Your task to perform on an android device: Open calendar and show me the first week of next month Image 0: 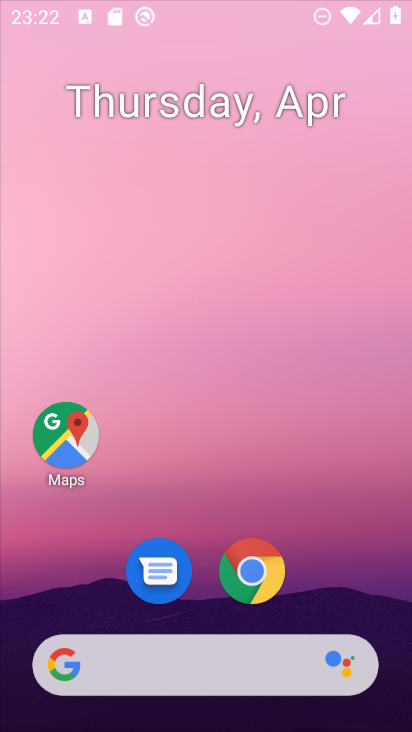
Step 0: click (328, 77)
Your task to perform on an android device: Open calendar and show me the first week of next month Image 1: 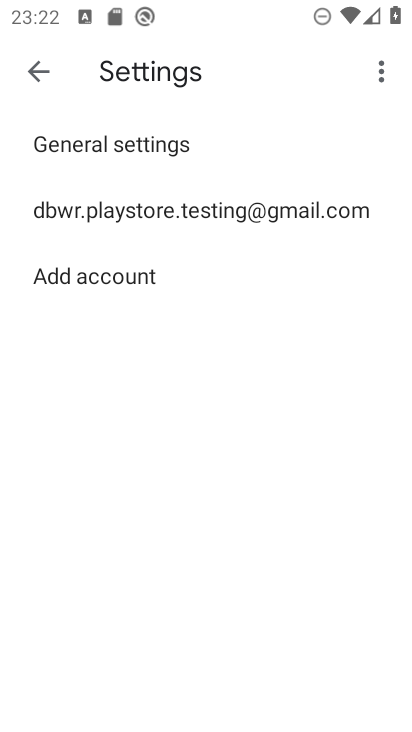
Step 1: press home button
Your task to perform on an android device: Open calendar and show me the first week of next month Image 2: 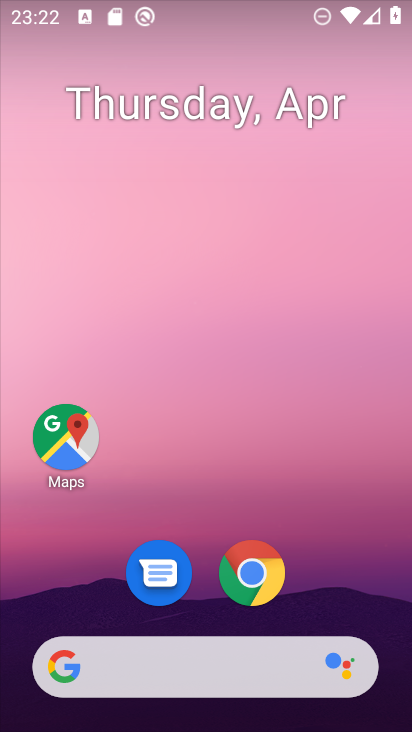
Step 2: drag from (353, 608) to (315, 103)
Your task to perform on an android device: Open calendar and show me the first week of next month Image 3: 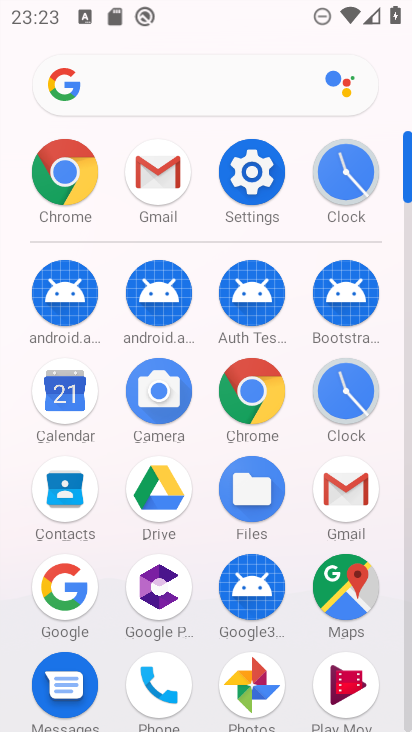
Step 3: click (70, 397)
Your task to perform on an android device: Open calendar and show me the first week of next month Image 4: 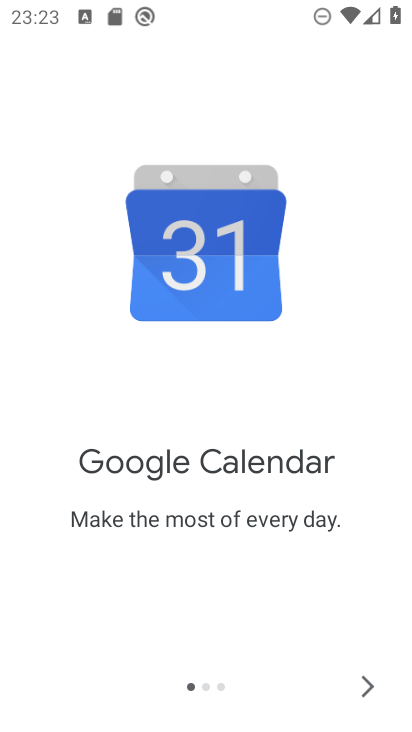
Step 4: click (372, 683)
Your task to perform on an android device: Open calendar and show me the first week of next month Image 5: 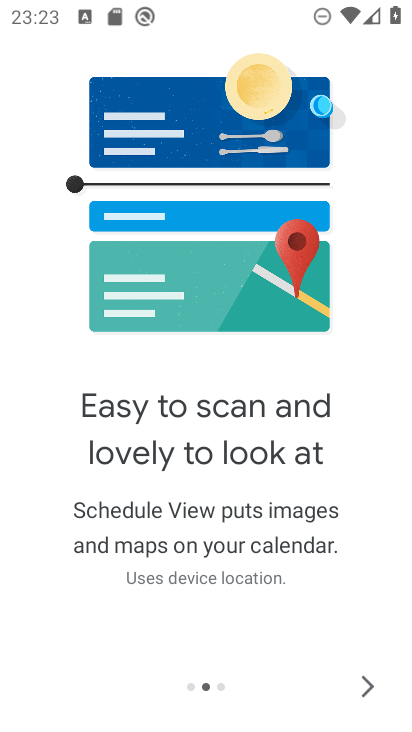
Step 5: click (372, 683)
Your task to perform on an android device: Open calendar and show me the first week of next month Image 6: 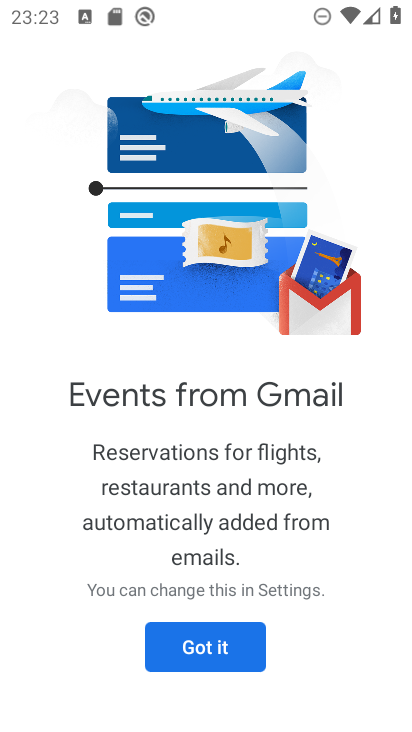
Step 6: click (259, 646)
Your task to perform on an android device: Open calendar and show me the first week of next month Image 7: 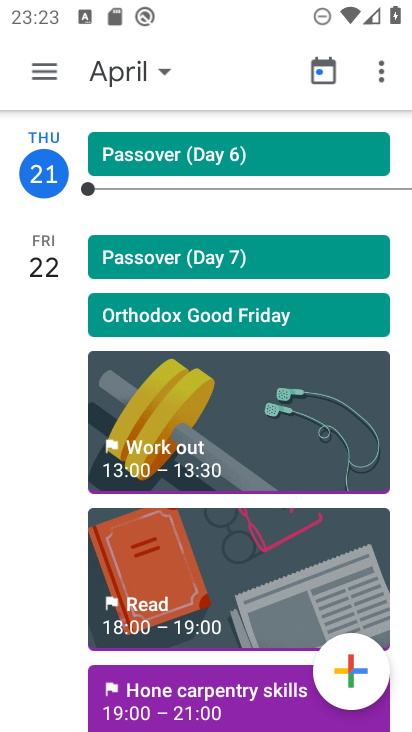
Step 7: click (160, 76)
Your task to perform on an android device: Open calendar and show me the first week of next month Image 8: 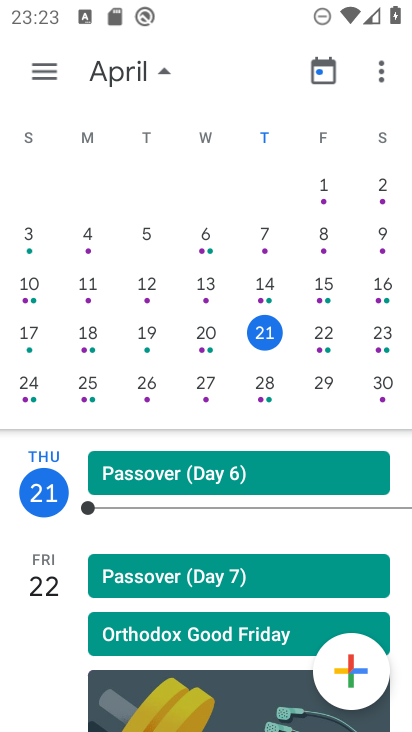
Step 8: drag from (380, 311) to (3, 170)
Your task to perform on an android device: Open calendar and show me the first week of next month Image 9: 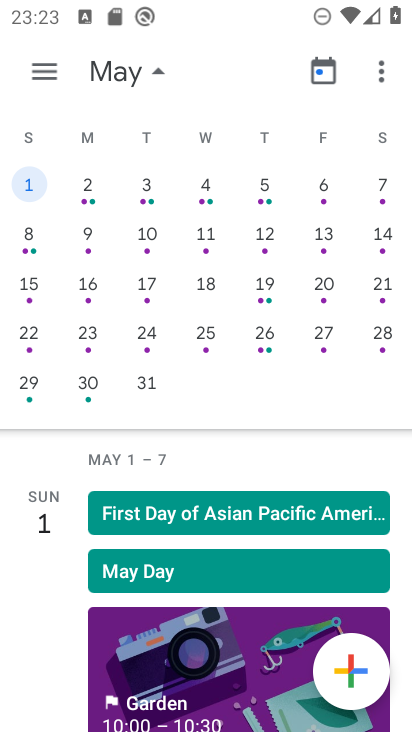
Step 9: click (45, 73)
Your task to perform on an android device: Open calendar and show me the first week of next month Image 10: 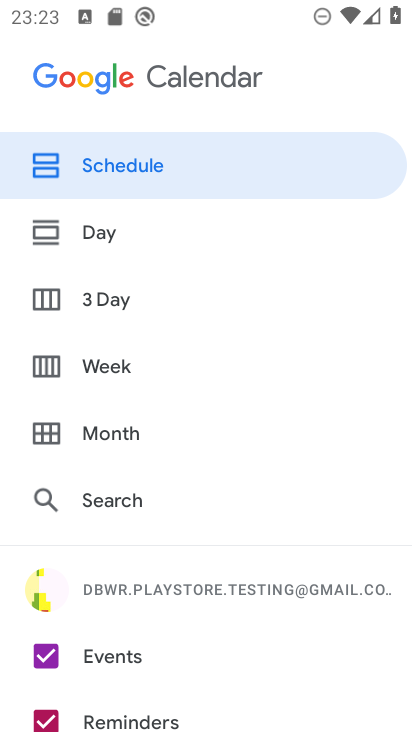
Step 10: click (145, 363)
Your task to perform on an android device: Open calendar and show me the first week of next month Image 11: 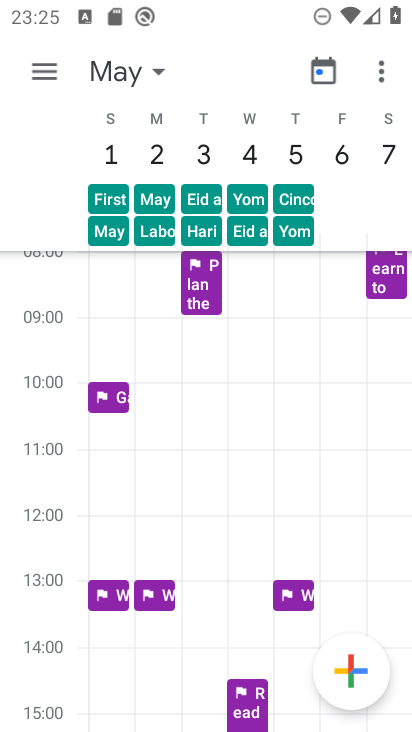
Step 11: task complete